Your task to perform on an android device: turn on bluetooth scan Image 0: 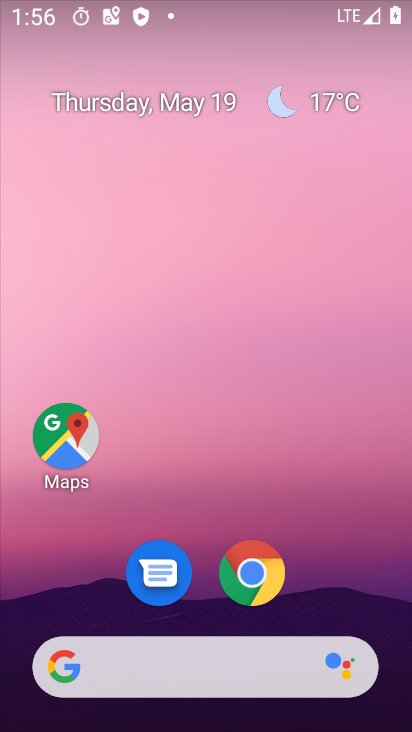
Step 0: drag from (188, 600) to (243, 126)
Your task to perform on an android device: turn on bluetooth scan Image 1: 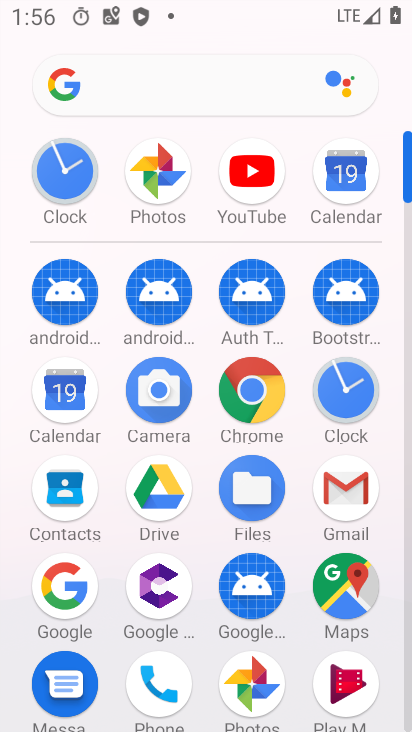
Step 1: drag from (250, 651) to (311, 119)
Your task to perform on an android device: turn on bluetooth scan Image 2: 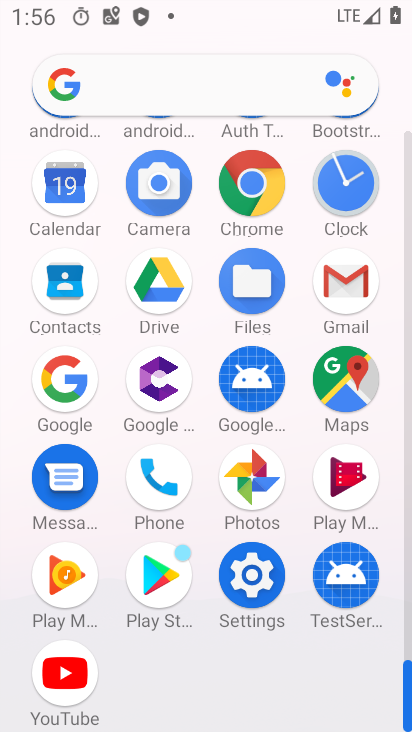
Step 2: click (260, 587)
Your task to perform on an android device: turn on bluetooth scan Image 3: 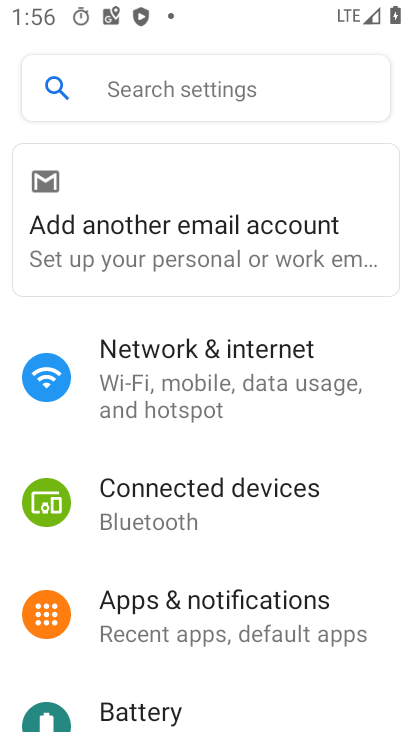
Step 3: click (196, 499)
Your task to perform on an android device: turn on bluetooth scan Image 4: 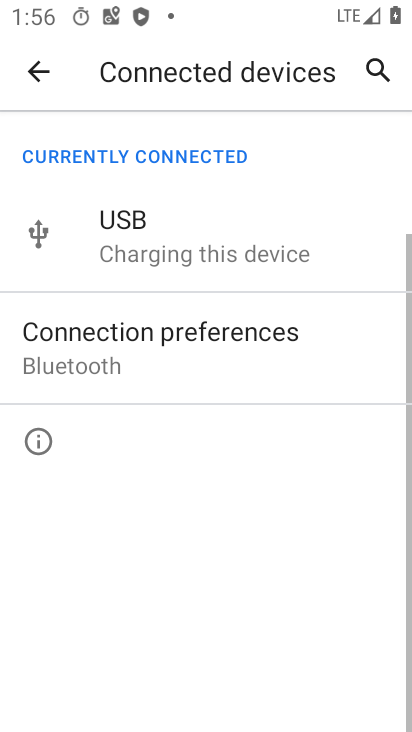
Step 4: click (125, 343)
Your task to perform on an android device: turn on bluetooth scan Image 5: 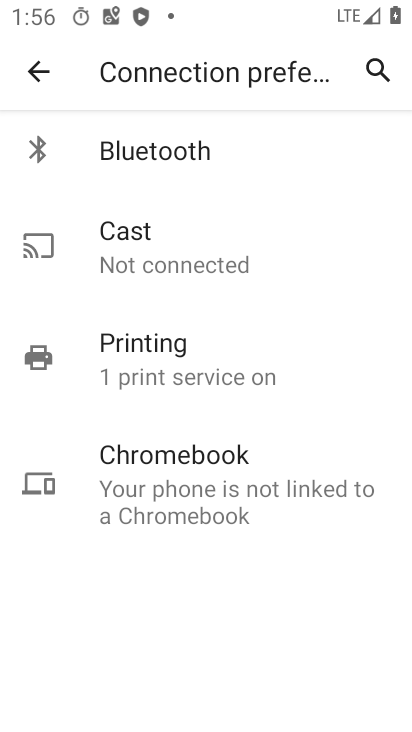
Step 5: click (181, 154)
Your task to perform on an android device: turn on bluetooth scan Image 6: 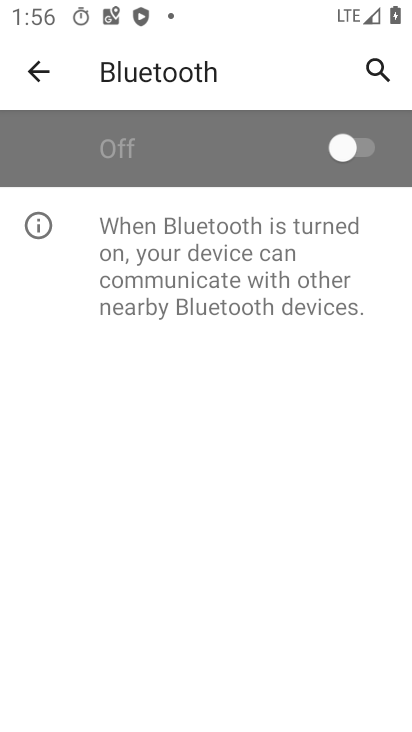
Step 6: click (358, 146)
Your task to perform on an android device: turn on bluetooth scan Image 7: 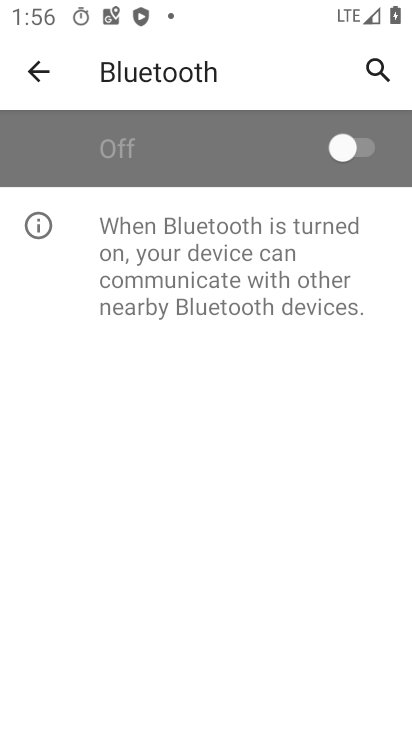
Step 7: task complete